Your task to perform on an android device: Open battery settings Image 0: 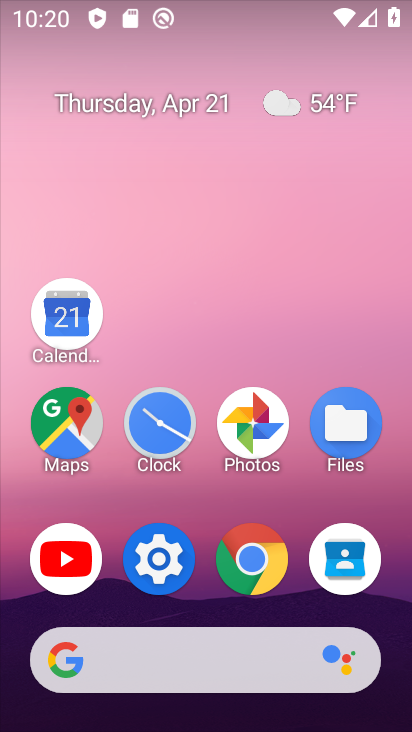
Step 0: click (159, 556)
Your task to perform on an android device: Open battery settings Image 1: 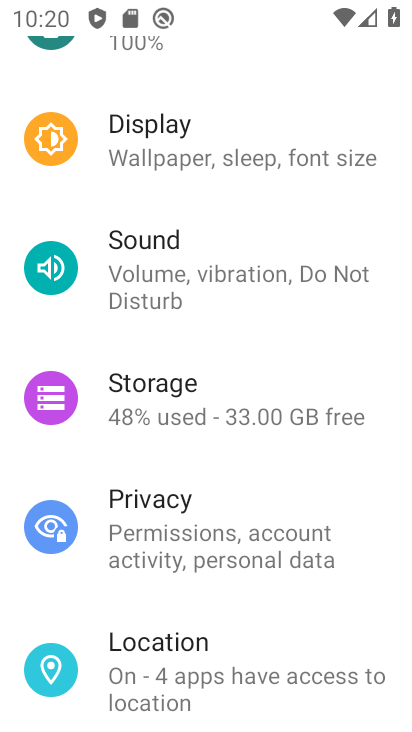
Step 1: drag from (203, 188) to (242, 676)
Your task to perform on an android device: Open battery settings Image 2: 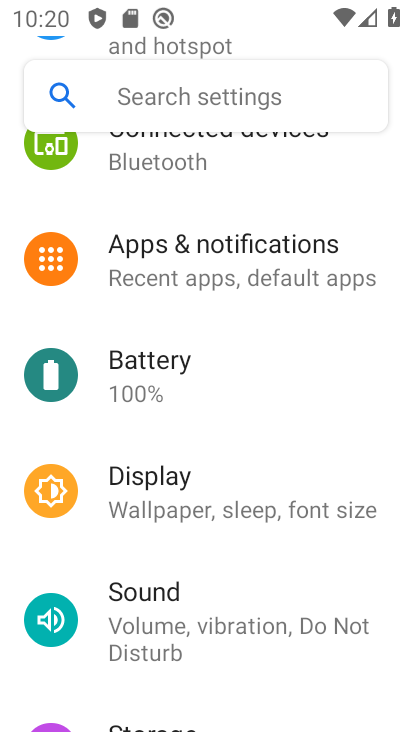
Step 2: click (143, 374)
Your task to perform on an android device: Open battery settings Image 3: 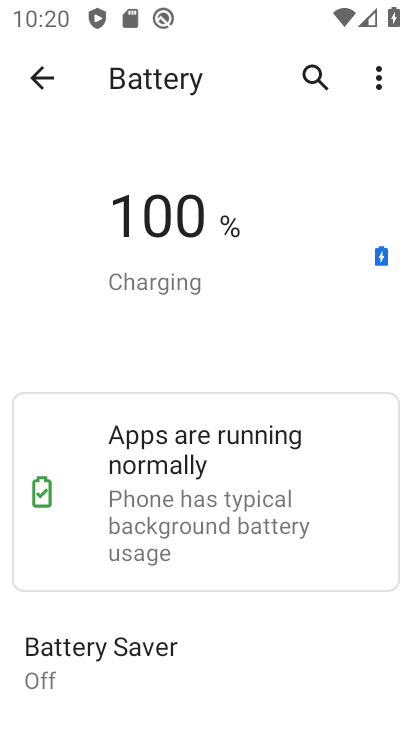
Step 3: task complete